Your task to perform on an android device: allow notifications from all sites in the chrome app Image 0: 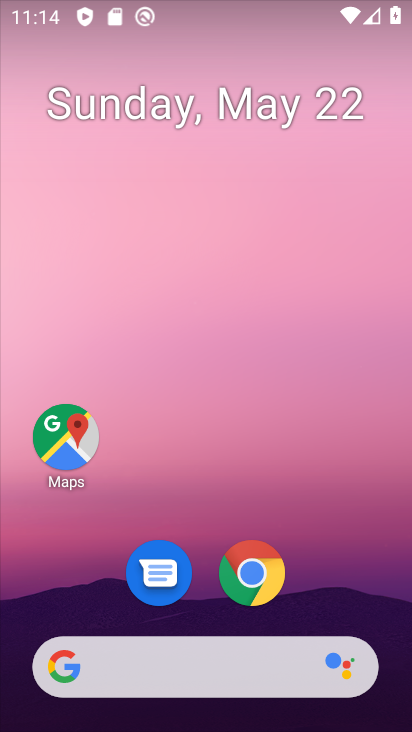
Step 0: drag from (199, 605) to (234, 68)
Your task to perform on an android device: allow notifications from all sites in the chrome app Image 1: 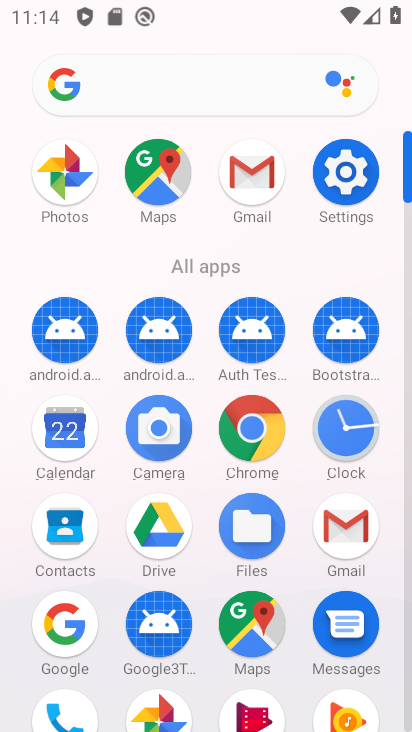
Step 1: click (265, 435)
Your task to perform on an android device: allow notifications from all sites in the chrome app Image 2: 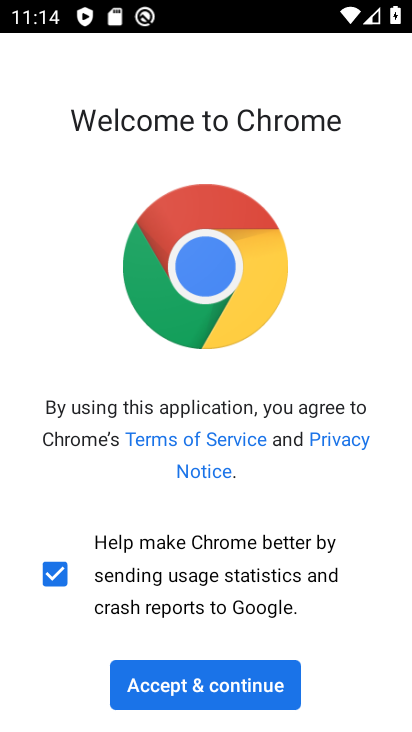
Step 2: click (218, 683)
Your task to perform on an android device: allow notifications from all sites in the chrome app Image 3: 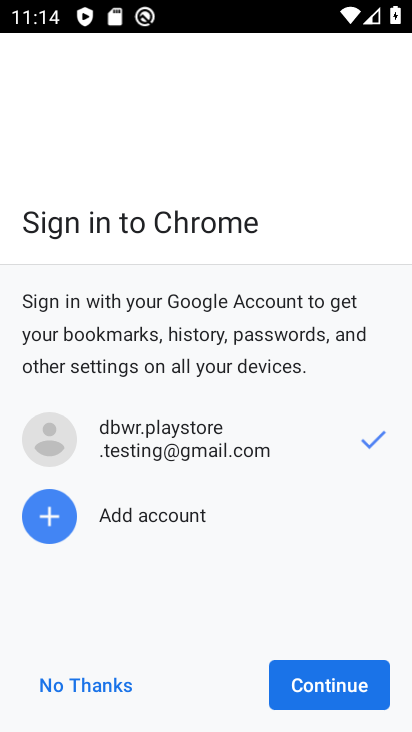
Step 3: click (314, 685)
Your task to perform on an android device: allow notifications from all sites in the chrome app Image 4: 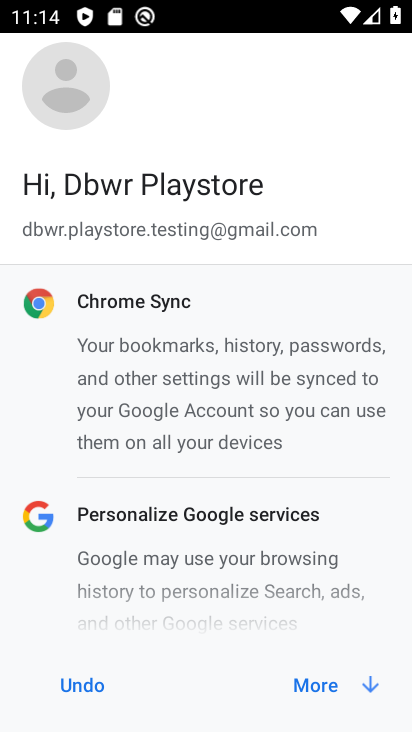
Step 4: click (312, 688)
Your task to perform on an android device: allow notifications from all sites in the chrome app Image 5: 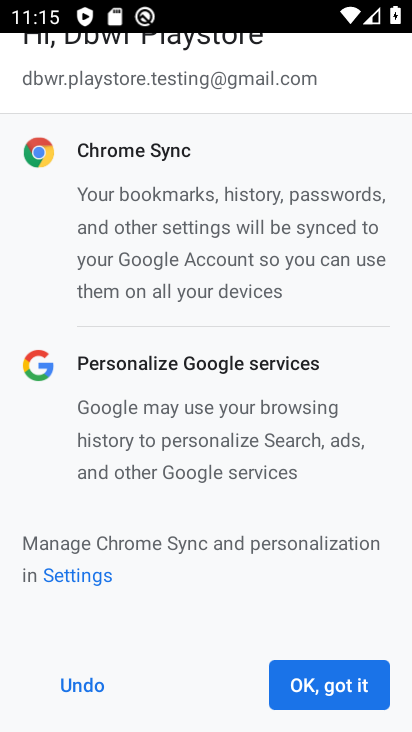
Step 5: click (312, 690)
Your task to perform on an android device: allow notifications from all sites in the chrome app Image 6: 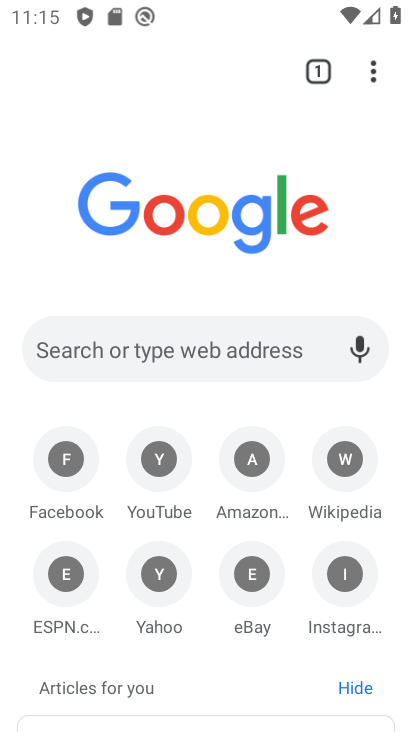
Step 6: click (372, 79)
Your task to perform on an android device: allow notifications from all sites in the chrome app Image 7: 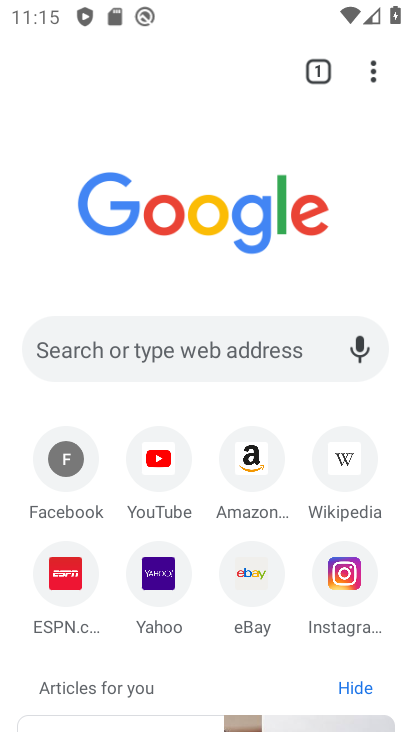
Step 7: click (373, 68)
Your task to perform on an android device: allow notifications from all sites in the chrome app Image 8: 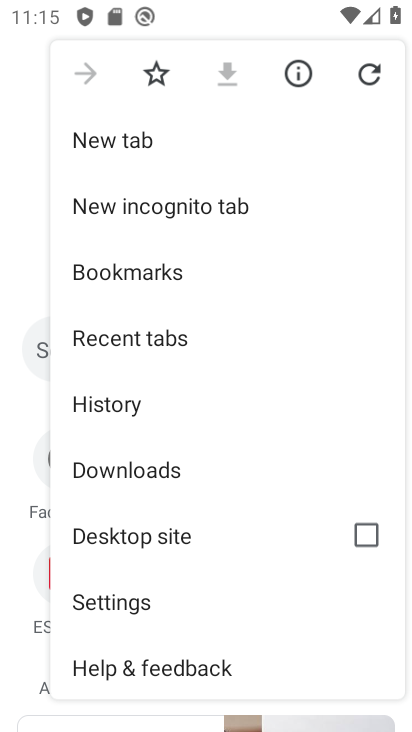
Step 8: click (112, 605)
Your task to perform on an android device: allow notifications from all sites in the chrome app Image 9: 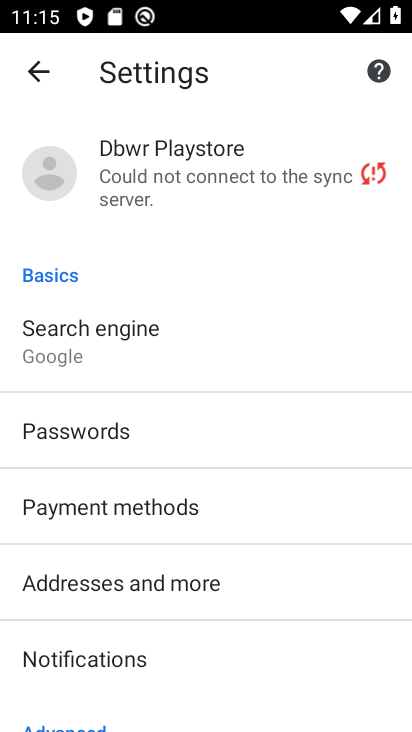
Step 9: drag from (139, 612) to (176, 400)
Your task to perform on an android device: allow notifications from all sites in the chrome app Image 10: 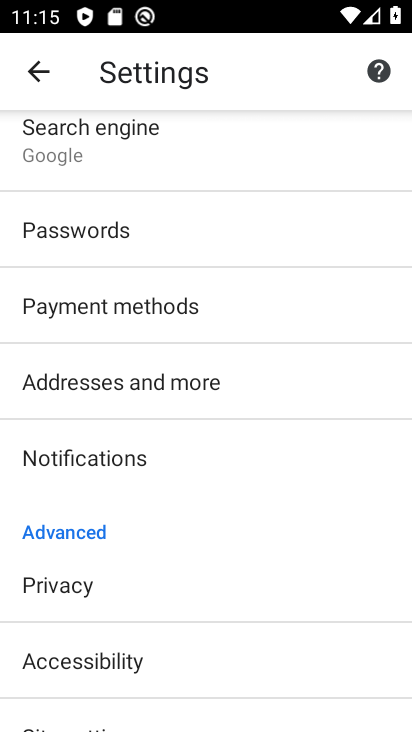
Step 10: click (122, 464)
Your task to perform on an android device: allow notifications from all sites in the chrome app Image 11: 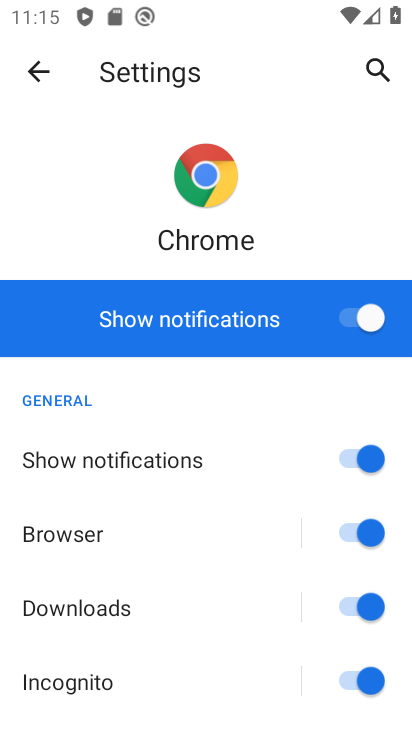
Step 11: task complete